Your task to perform on an android device: turn off improve location accuracy Image 0: 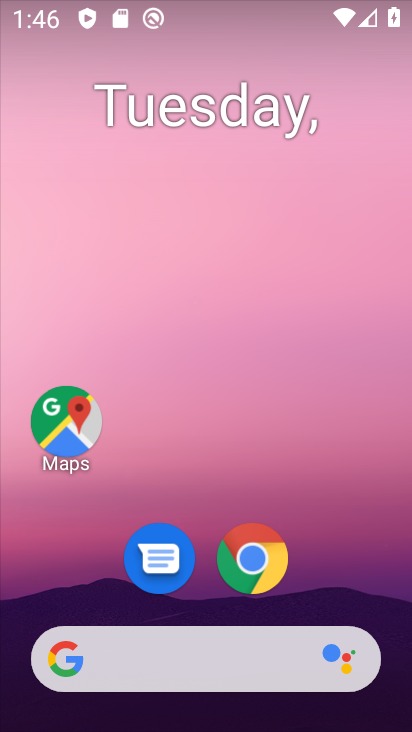
Step 0: drag from (224, 551) to (292, 44)
Your task to perform on an android device: turn off improve location accuracy Image 1: 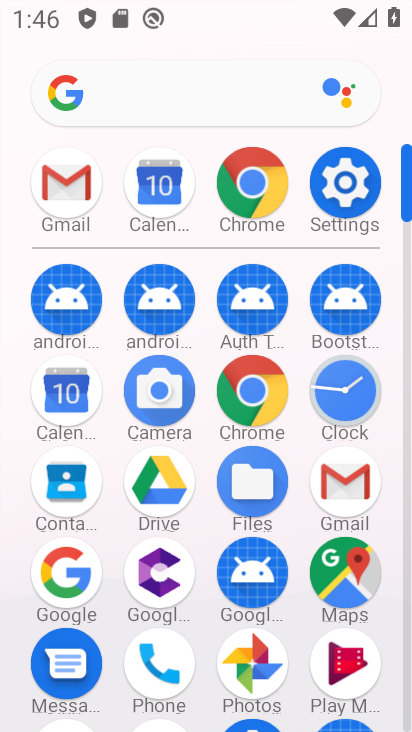
Step 1: click (336, 168)
Your task to perform on an android device: turn off improve location accuracy Image 2: 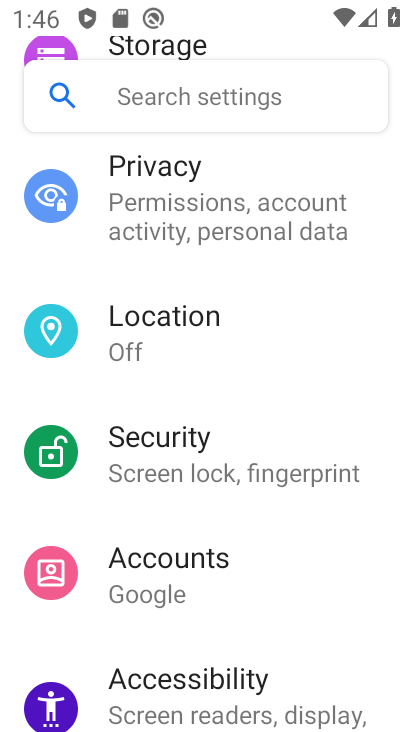
Step 2: click (133, 314)
Your task to perform on an android device: turn off improve location accuracy Image 3: 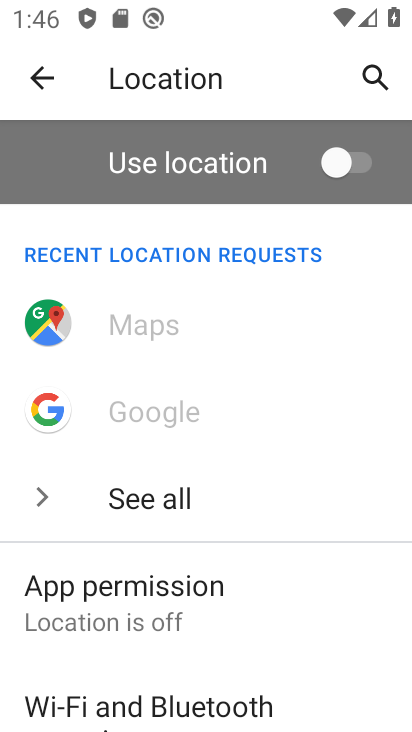
Step 3: drag from (160, 662) to (289, 240)
Your task to perform on an android device: turn off improve location accuracy Image 4: 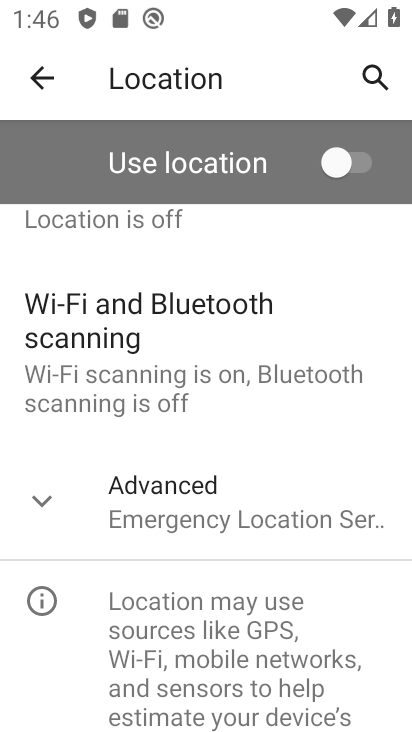
Step 4: click (184, 503)
Your task to perform on an android device: turn off improve location accuracy Image 5: 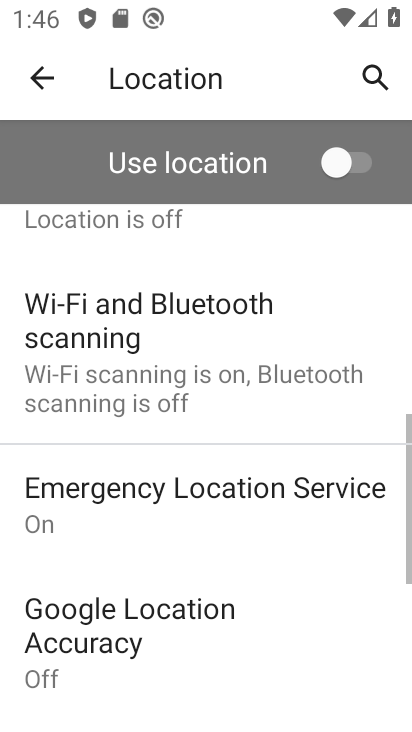
Step 5: drag from (177, 650) to (246, 421)
Your task to perform on an android device: turn off improve location accuracy Image 6: 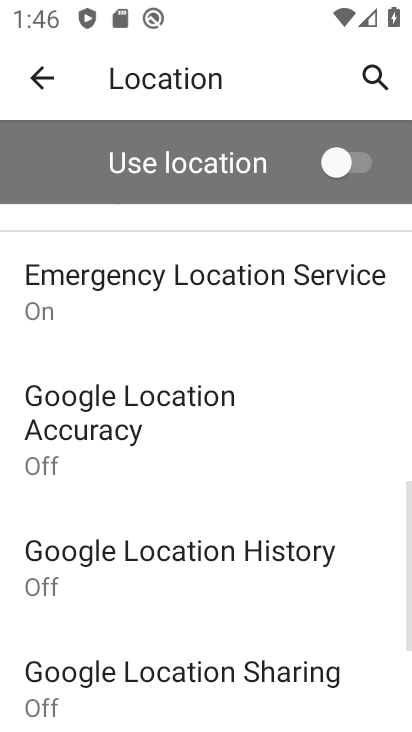
Step 6: click (143, 438)
Your task to perform on an android device: turn off improve location accuracy Image 7: 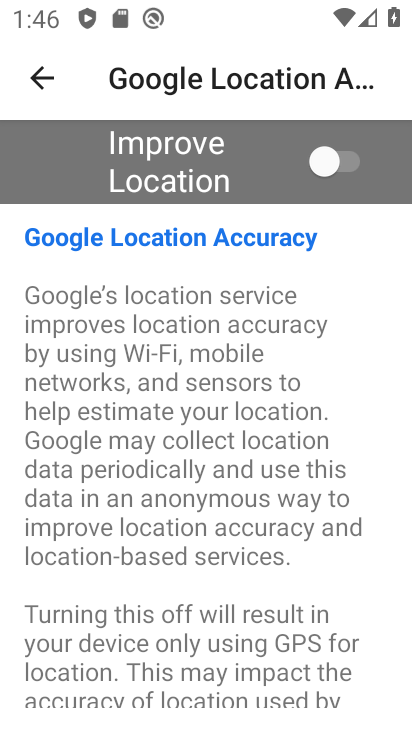
Step 7: task complete